Your task to perform on an android device: Open Android settings Image 0: 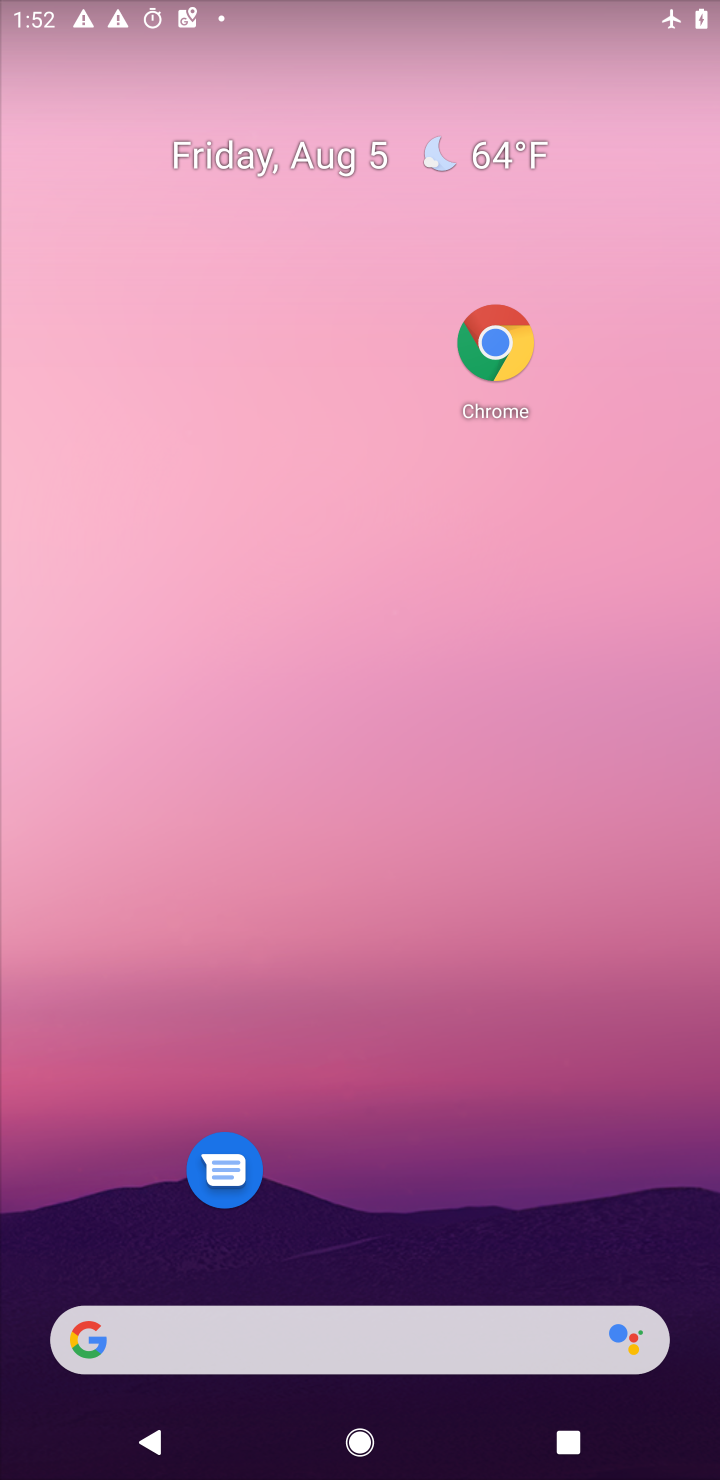
Step 0: drag from (454, 1054) to (376, 229)
Your task to perform on an android device: Open Android settings Image 1: 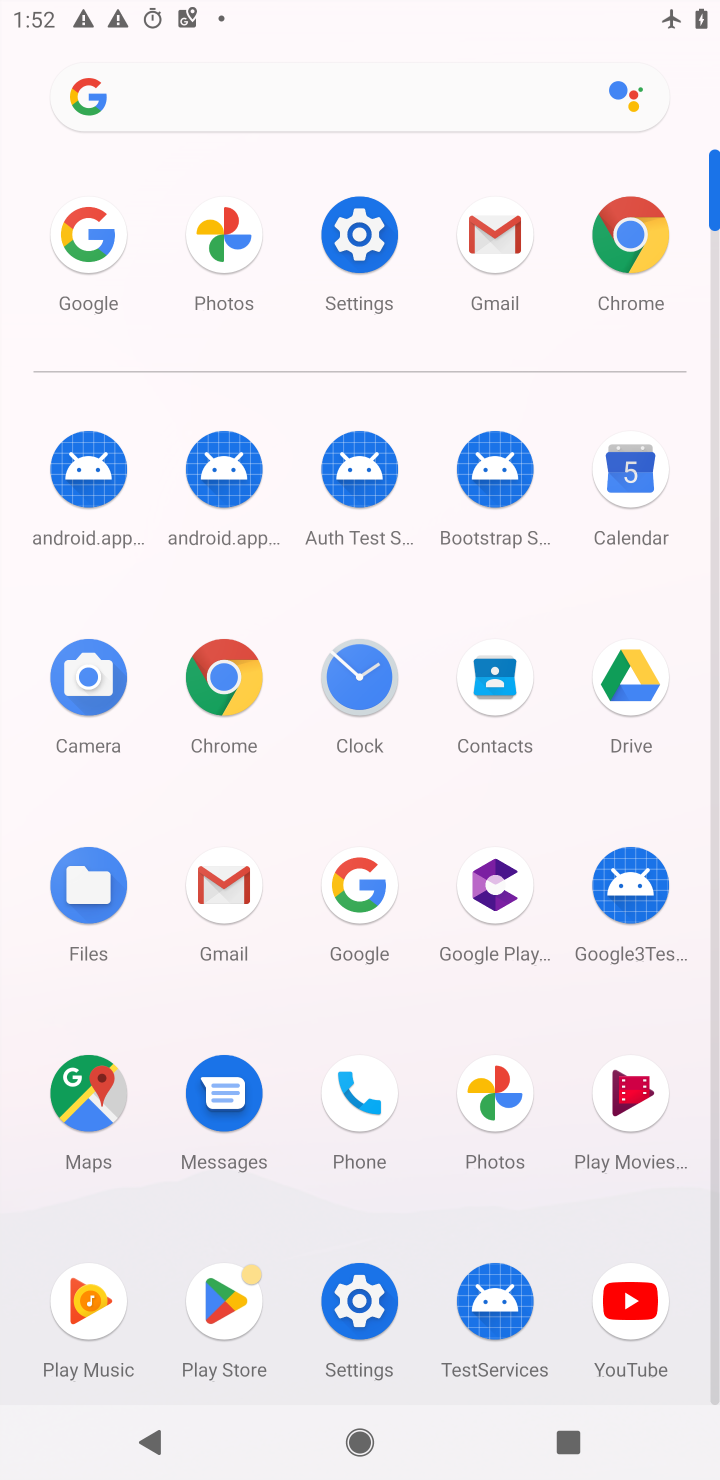
Step 1: click (393, 1297)
Your task to perform on an android device: Open Android settings Image 2: 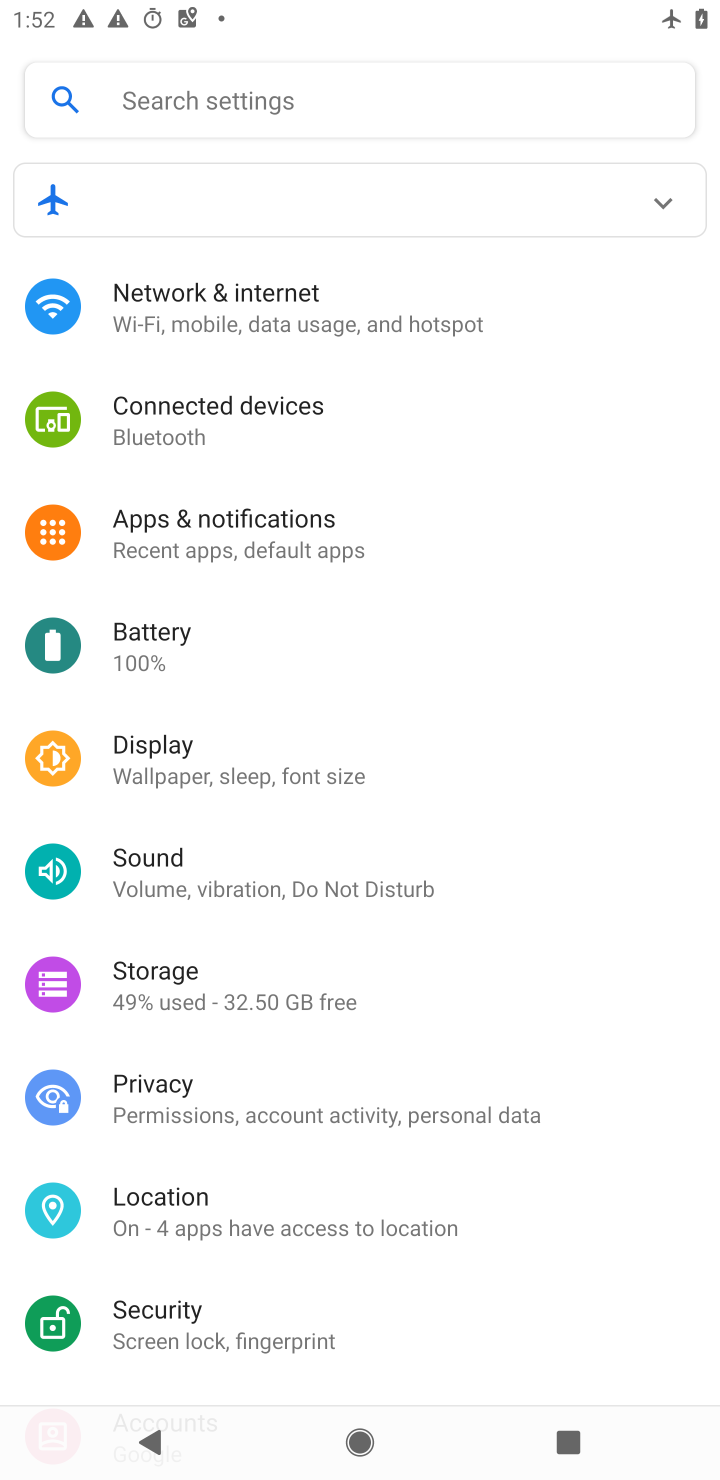
Step 2: task complete